Your task to perform on an android device: turn pop-ups off in chrome Image 0: 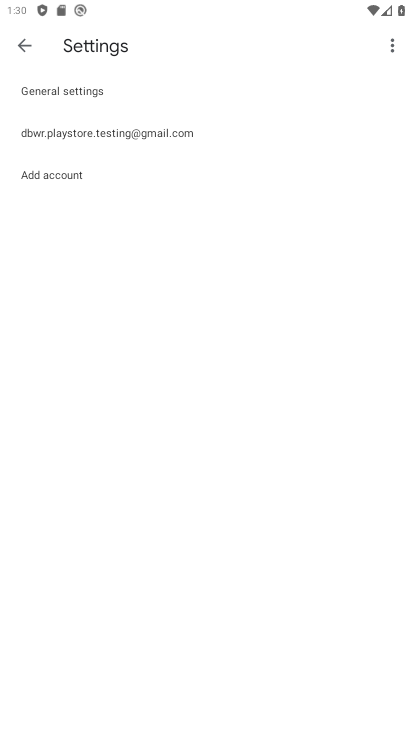
Step 0: press home button
Your task to perform on an android device: turn pop-ups off in chrome Image 1: 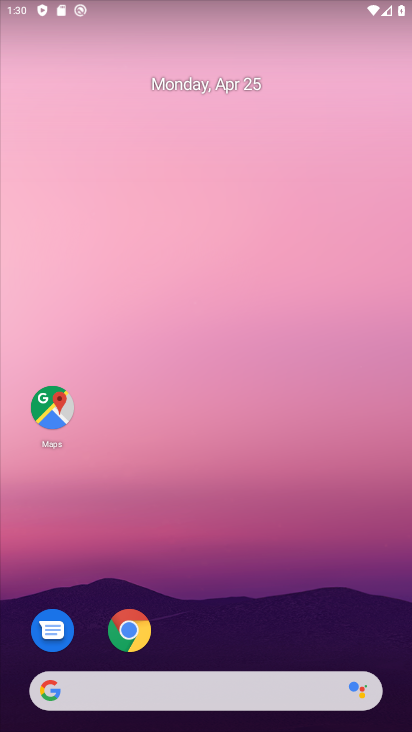
Step 1: drag from (280, 599) to (277, 67)
Your task to perform on an android device: turn pop-ups off in chrome Image 2: 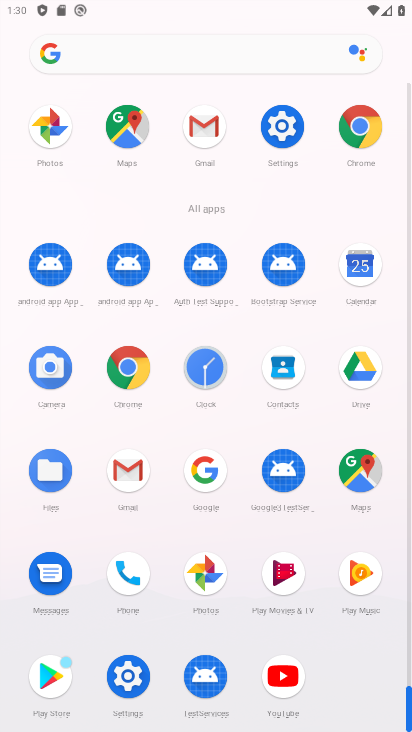
Step 2: click (368, 127)
Your task to perform on an android device: turn pop-ups off in chrome Image 3: 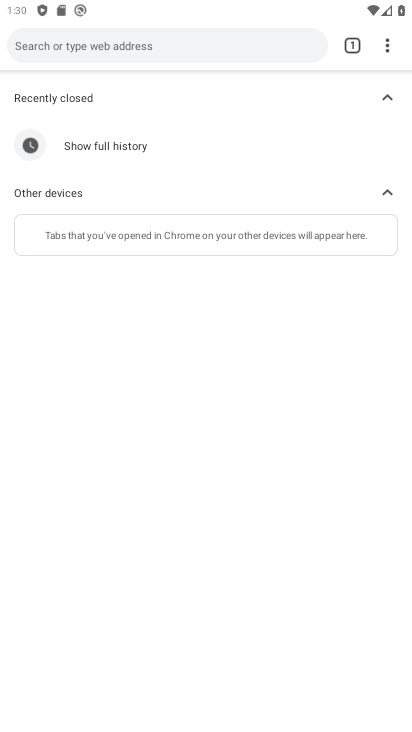
Step 3: drag from (385, 41) to (216, 373)
Your task to perform on an android device: turn pop-ups off in chrome Image 4: 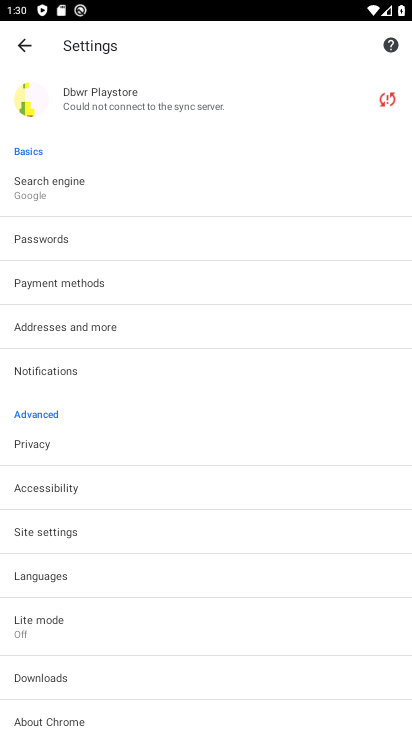
Step 4: drag from (215, 520) to (271, 123)
Your task to perform on an android device: turn pop-ups off in chrome Image 5: 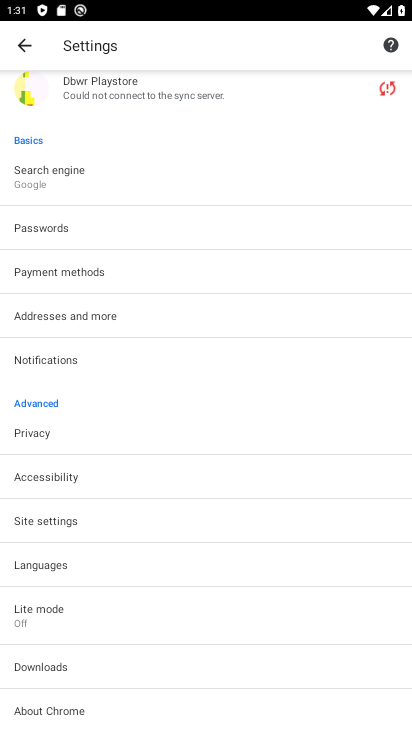
Step 5: click (58, 531)
Your task to perform on an android device: turn pop-ups off in chrome Image 6: 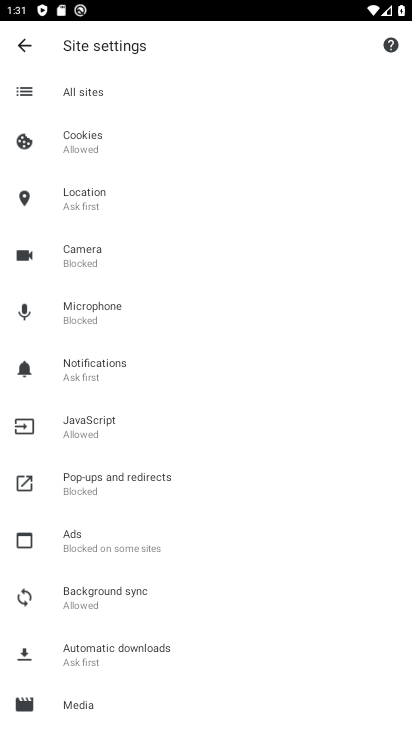
Step 6: click (118, 484)
Your task to perform on an android device: turn pop-ups off in chrome Image 7: 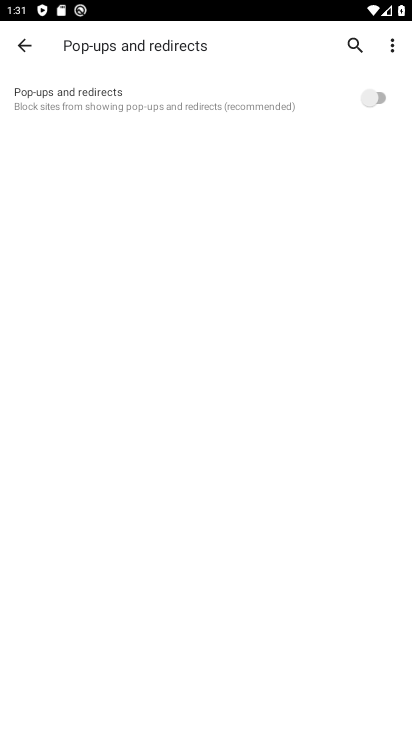
Step 7: task complete